Your task to perform on an android device: Open Google Chrome Image 0: 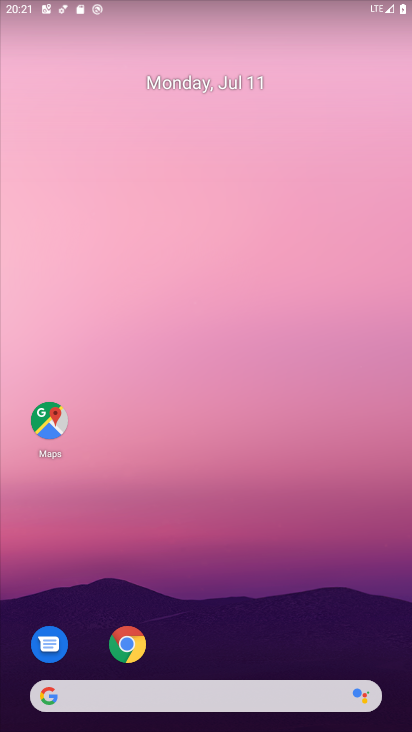
Step 0: drag from (268, 556) to (248, 180)
Your task to perform on an android device: Open Google Chrome Image 1: 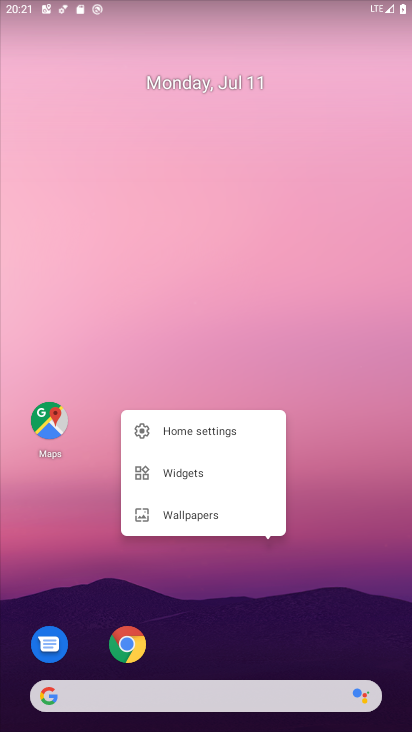
Step 1: drag from (215, 537) to (151, 112)
Your task to perform on an android device: Open Google Chrome Image 2: 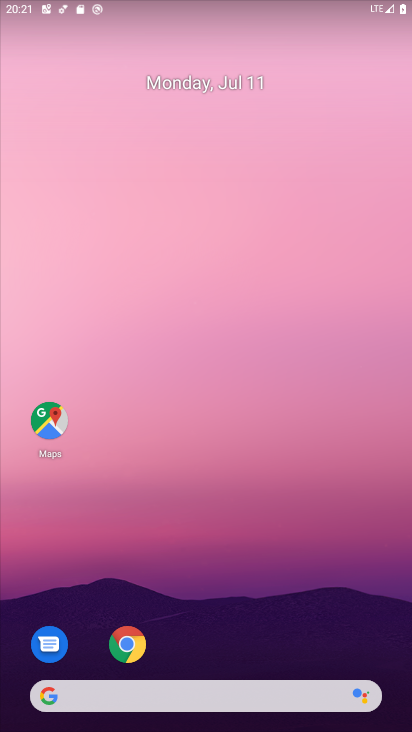
Step 2: drag from (186, 360) to (249, 321)
Your task to perform on an android device: Open Google Chrome Image 3: 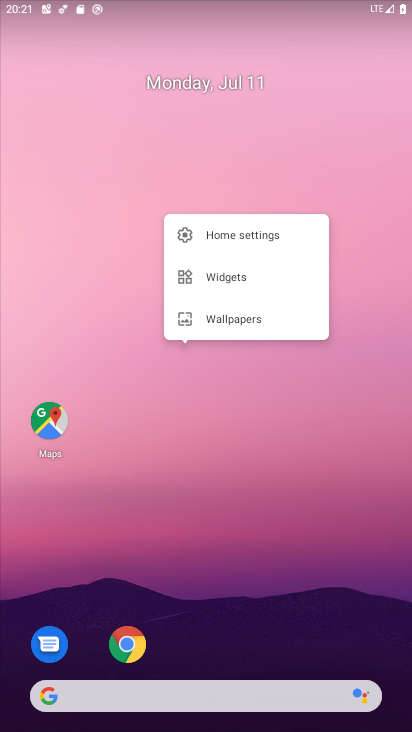
Step 3: click (202, 176)
Your task to perform on an android device: Open Google Chrome Image 4: 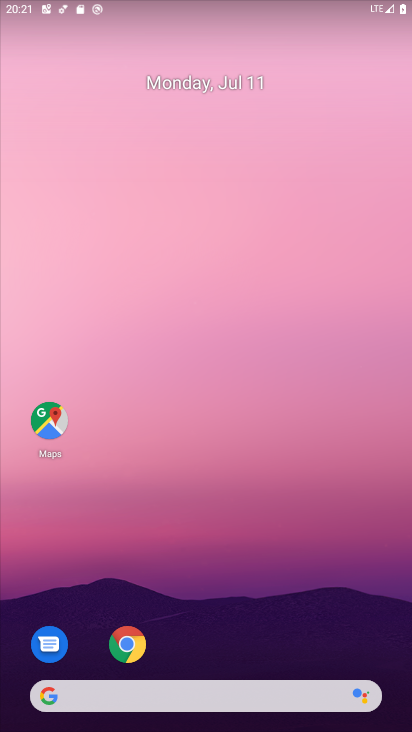
Step 4: click (177, 142)
Your task to perform on an android device: Open Google Chrome Image 5: 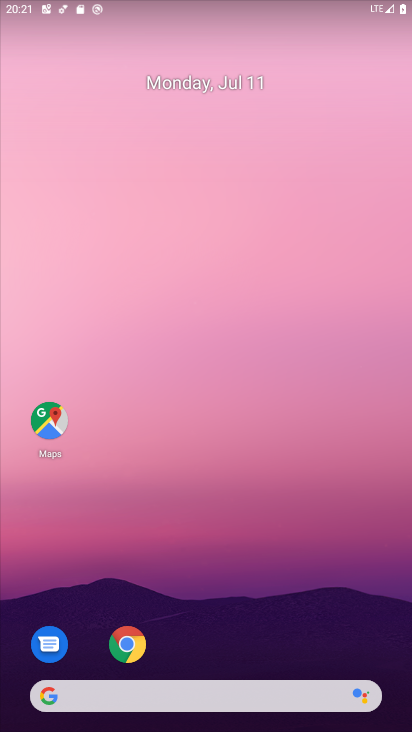
Step 5: drag from (220, 703) to (225, 610)
Your task to perform on an android device: Open Google Chrome Image 6: 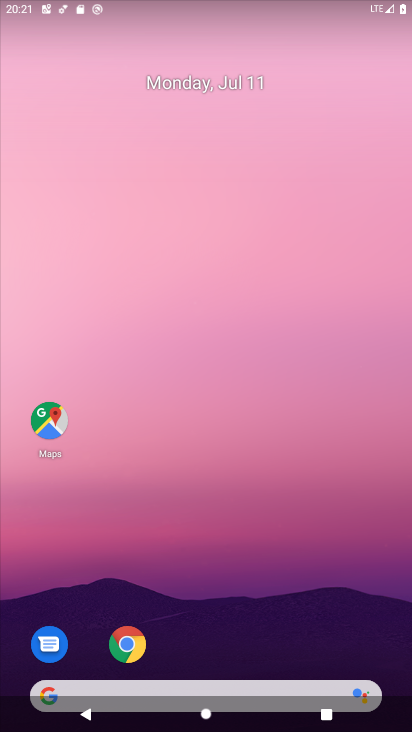
Step 6: drag from (211, 383) to (160, 20)
Your task to perform on an android device: Open Google Chrome Image 7: 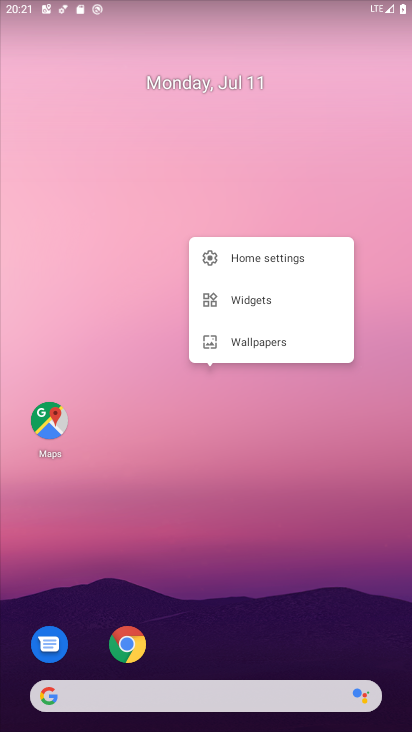
Step 7: click (156, 165)
Your task to perform on an android device: Open Google Chrome Image 8: 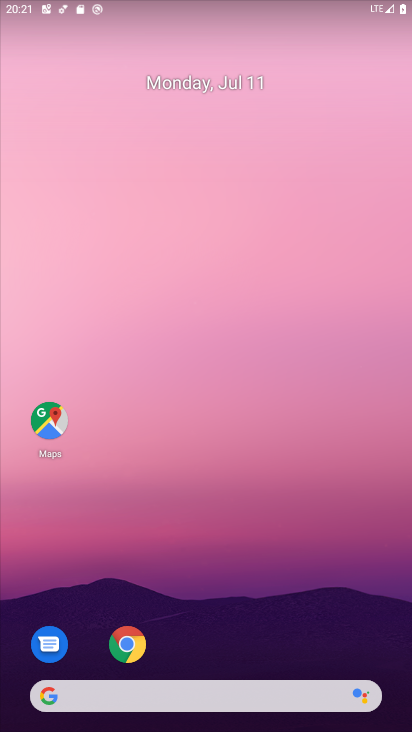
Step 8: drag from (255, 519) to (190, 286)
Your task to perform on an android device: Open Google Chrome Image 9: 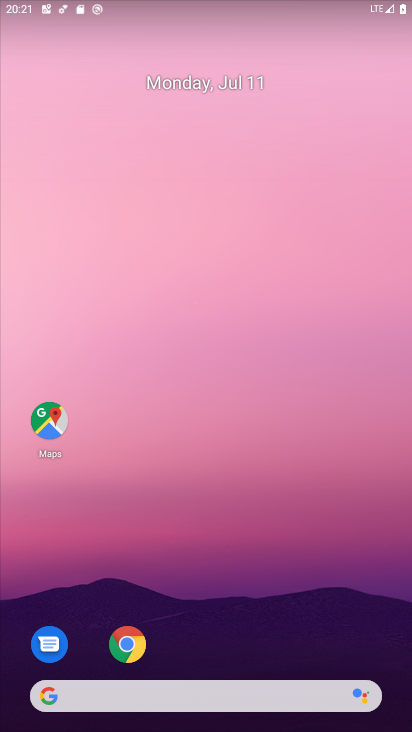
Step 9: click (118, 267)
Your task to perform on an android device: Open Google Chrome Image 10: 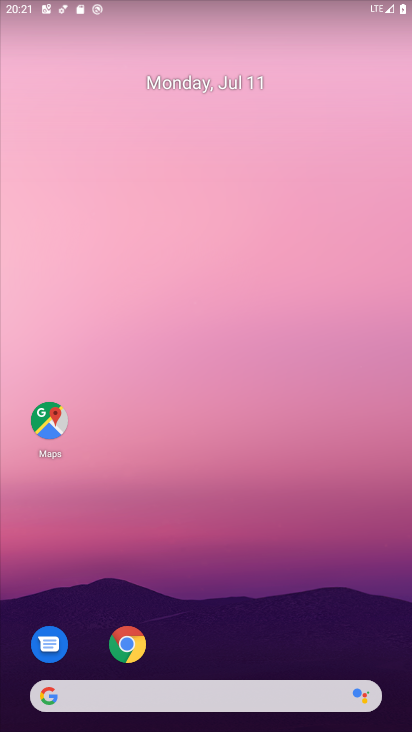
Step 10: drag from (254, 613) to (209, 74)
Your task to perform on an android device: Open Google Chrome Image 11: 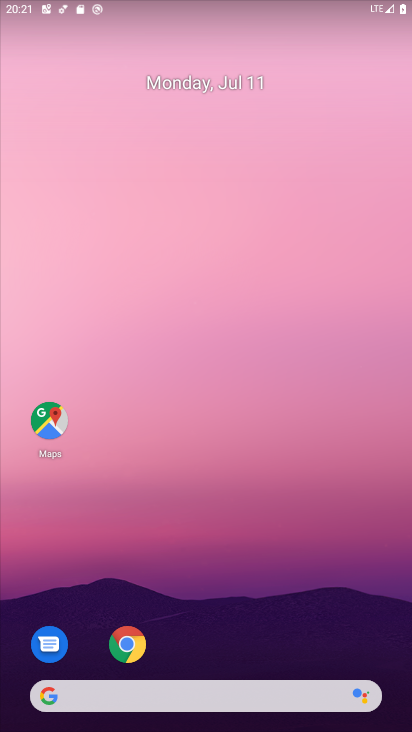
Step 11: drag from (223, 275) to (196, 70)
Your task to perform on an android device: Open Google Chrome Image 12: 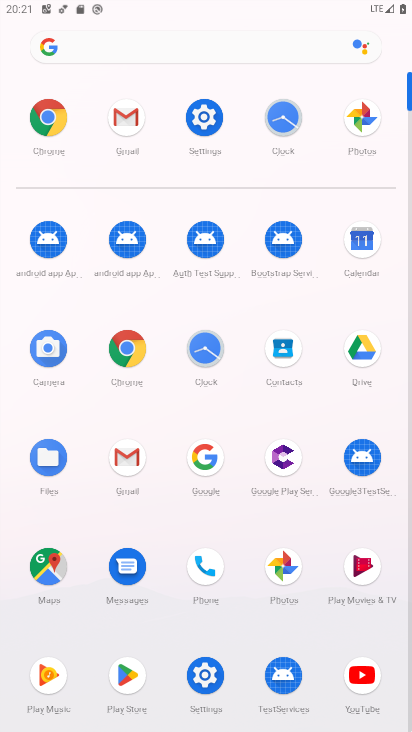
Step 12: click (49, 109)
Your task to perform on an android device: Open Google Chrome Image 13: 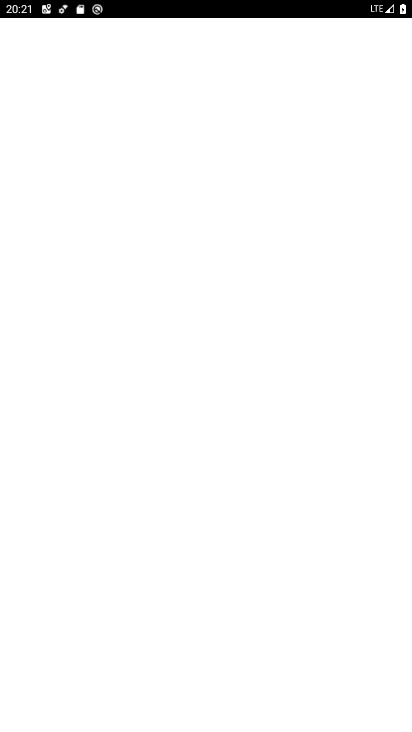
Step 13: click (49, 109)
Your task to perform on an android device: Open Google Chrome Image 14: 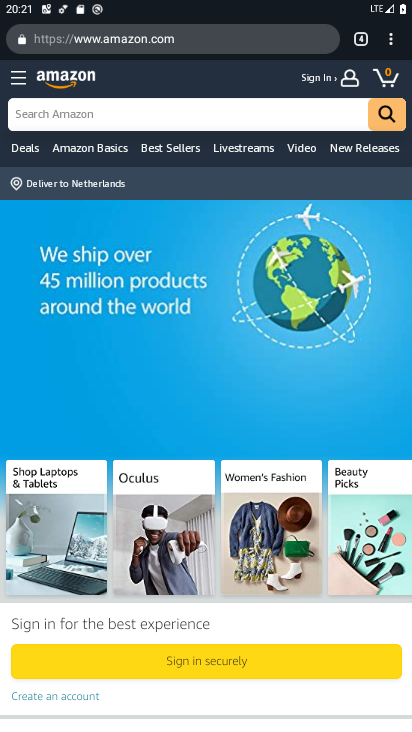
Step 14: task complete